Your task to perform on an android device: find photos in the google photos app Image 0: 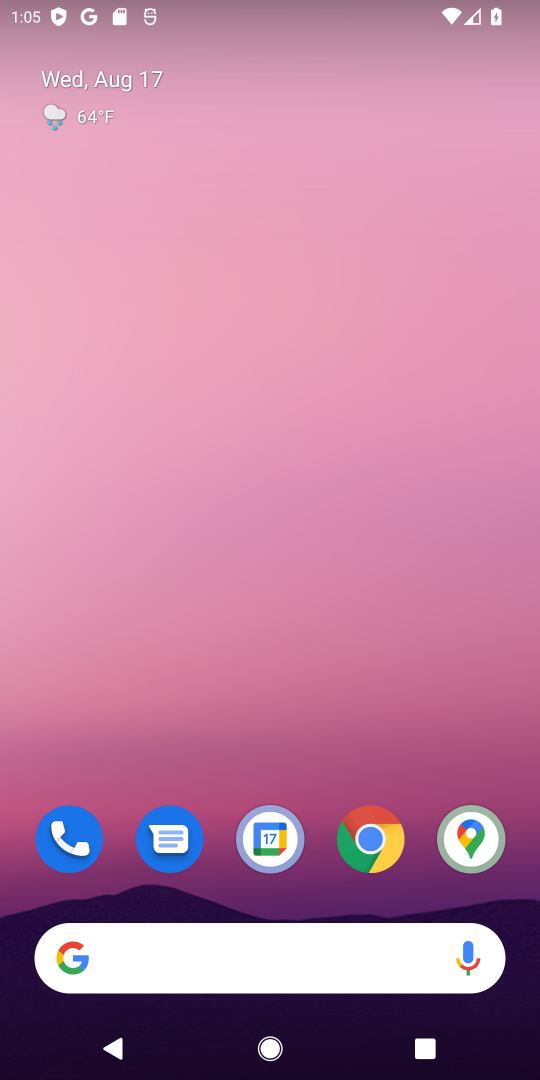
Step 0: drag from (289, 967) to (380, 266)
Your task to perform on an android device: find photos in the google photos app Image 1: 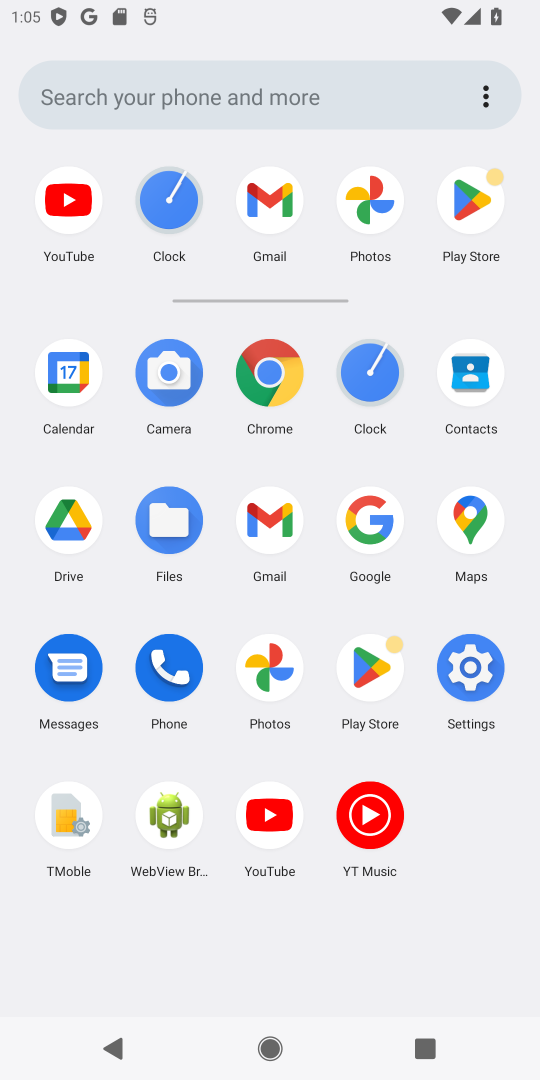
Step 1: click (368, 204)
Your task to perform on an android device: find photos in the google photos app Image 2: 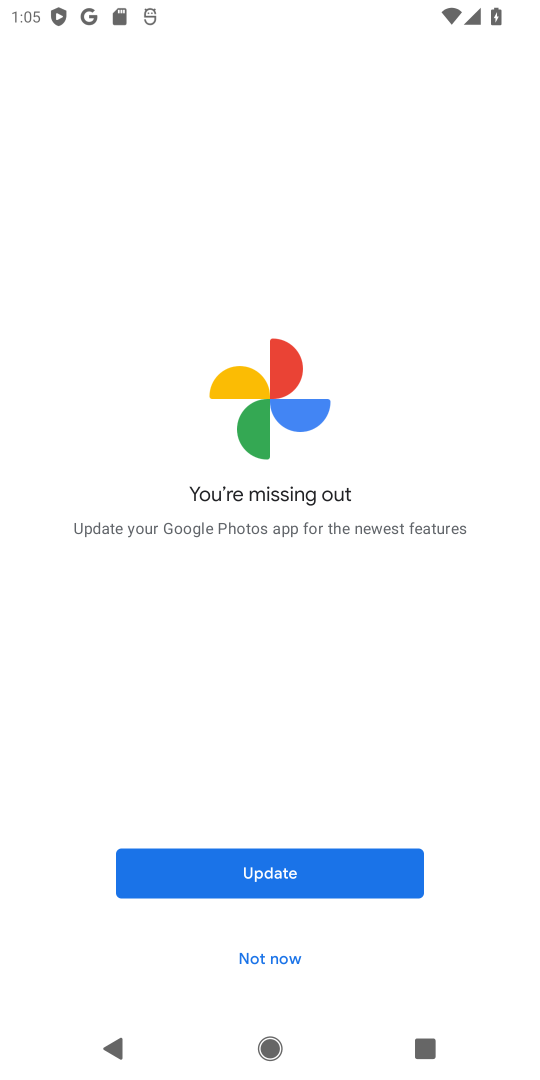
Step 2: click (256, 873)
Your task to perform on an android device: find photos in the google photos app Image 3: 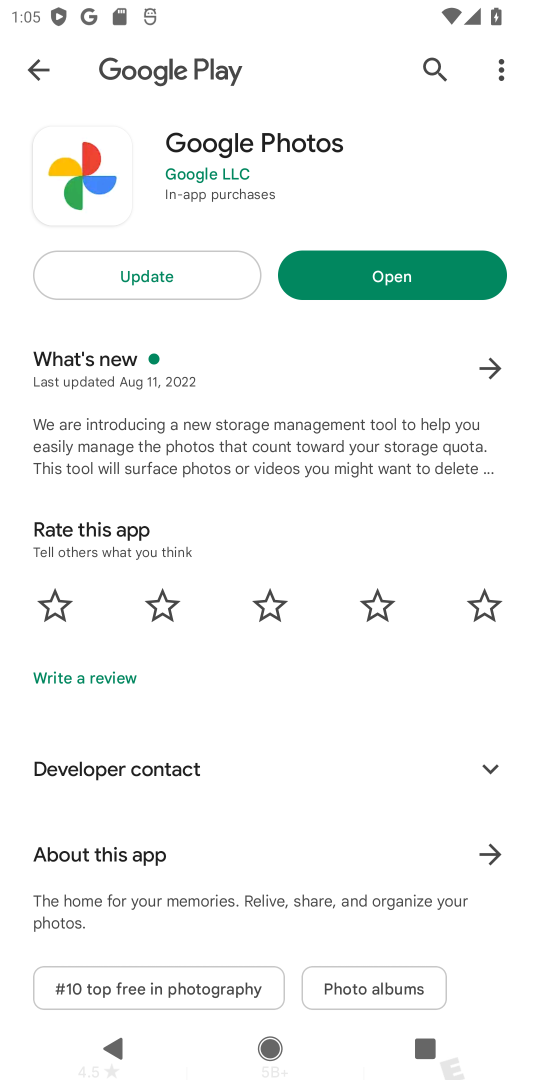
Step 3: click (172, 275)
Your task to perform on an android device: find photos in the google photos app Image 4: 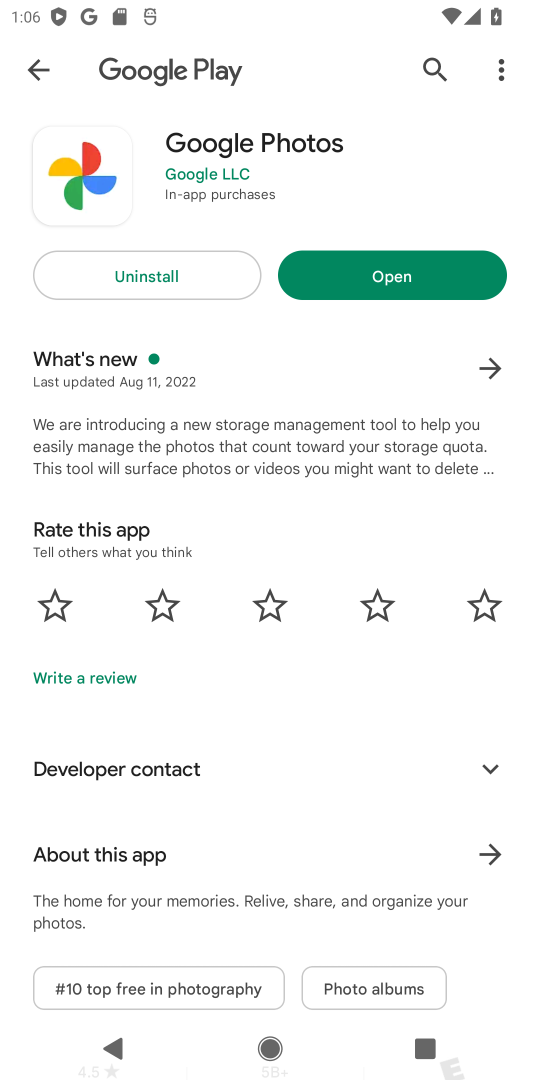
Step 4: click (366, 271)
Your task to perform on an android device: find photos in the google photos app Image 5: 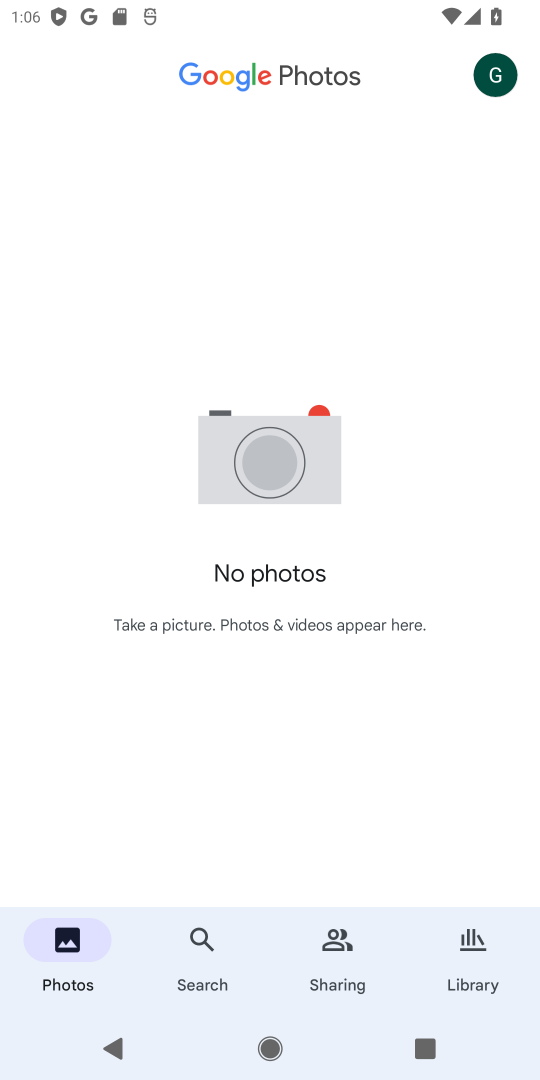
Step 5: click (205, 930)
Your task to perform on an android device: find photos in the google photos app Image 6: 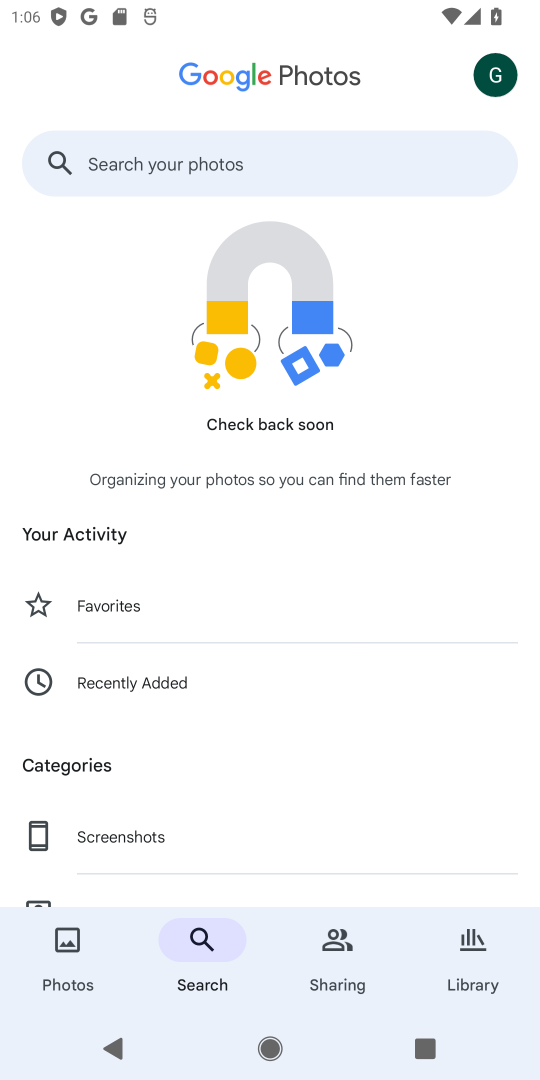
Step 6: click (123, 608)
Your task to perform on an android device: find photos in the google photos app Image 7: 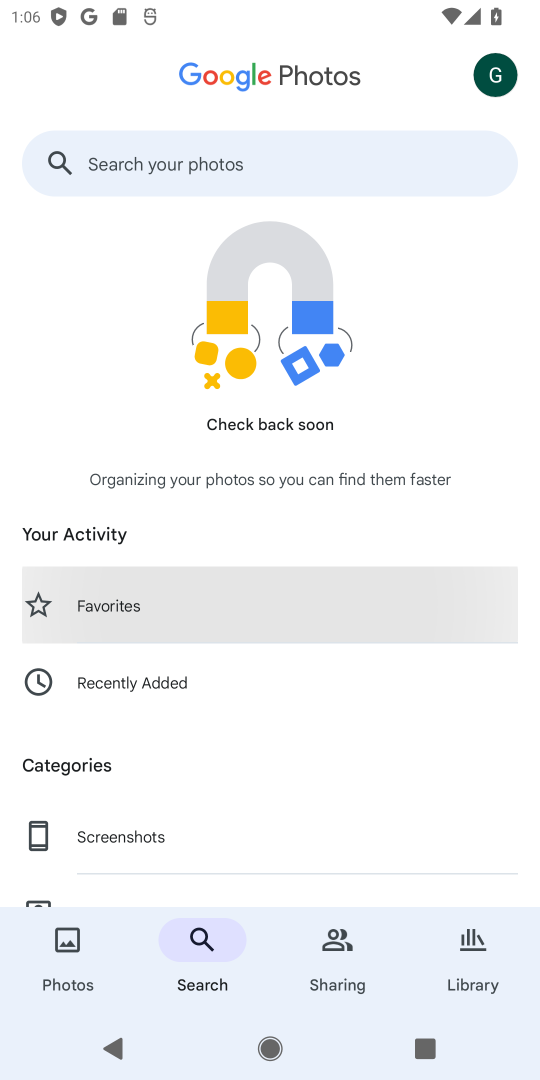
Step 7: click (123, 608)
Your task to perform on an android device: find photos in the google photos app Image 8: 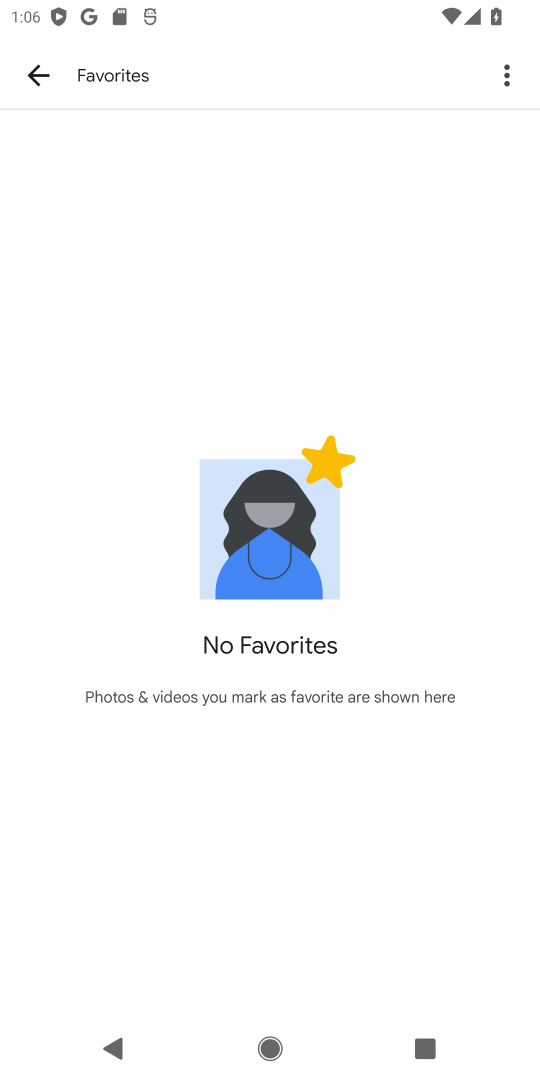
Step 8: task complete